Your task to perform on an android device: delete location history Image 0: 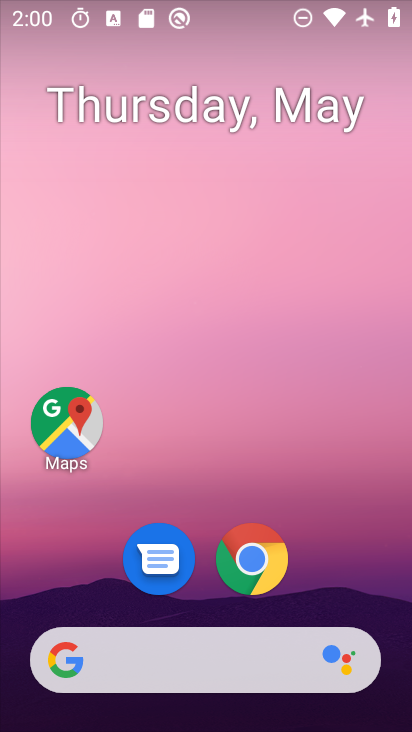
Step 0: drag from (221, 623) to (166, 102)
Your task to perform on an android device: delete location history Image 1: 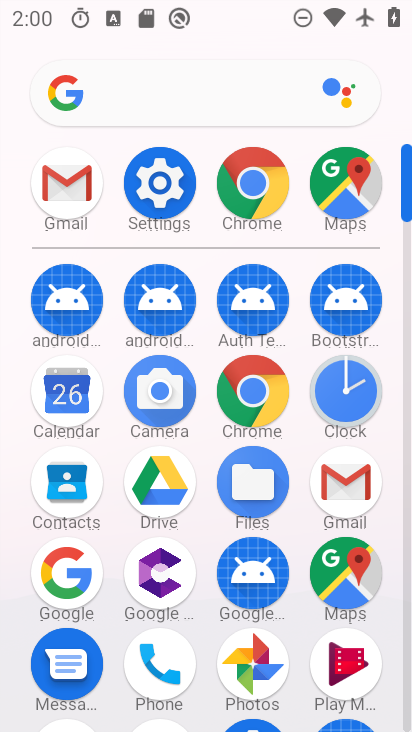
Step 1: click (159, 199)
Your task to perform on an android device: delete location history Image 2: 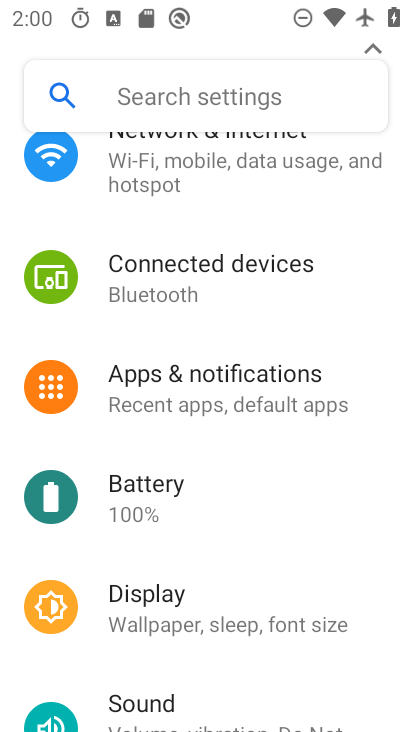
Step 2: drag from (165, 622) to (165, 395)
Your task to perform on an android device: delete location history Image 3: 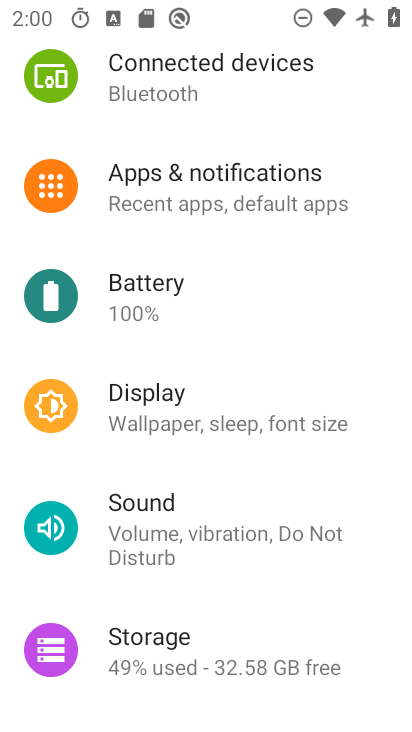
Step 3: drag from (185, 563) to (196, 244)
Your task to perform on an android device: delete location history Image 4: 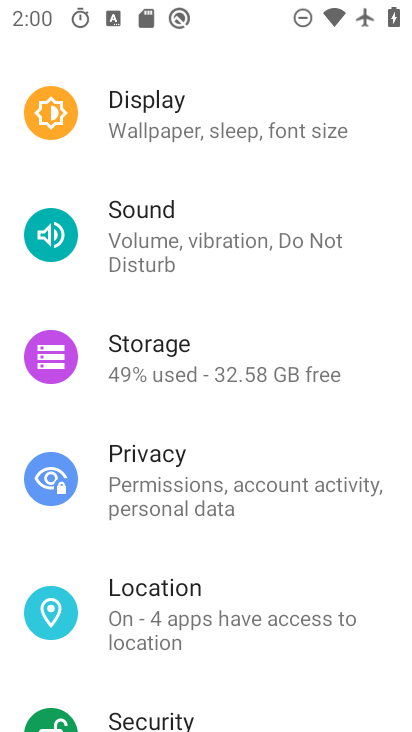
Step 4: click (210, 605)
Your task to perform on an android device: delete location history Image 5: 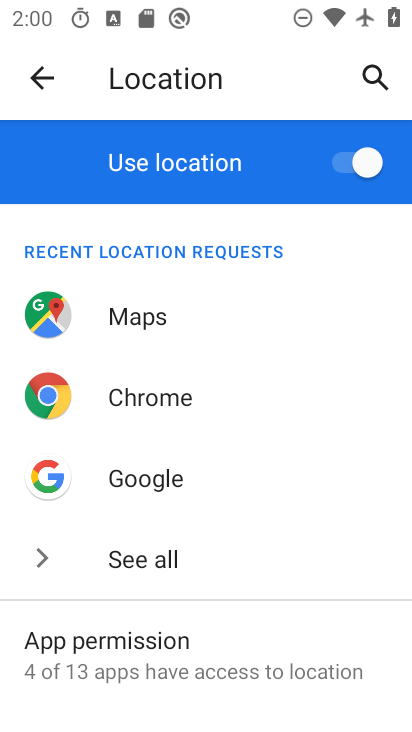
Step 5: drag from (210, 603) to (192, 234)
Your task to perform on an android device: delete location history Image 6: 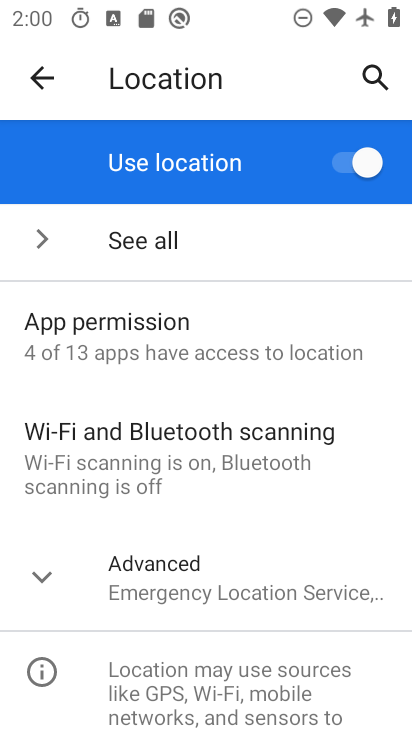
Step 6: click (173, 568)
Your task to perform on an android device: delete location history Image 7: 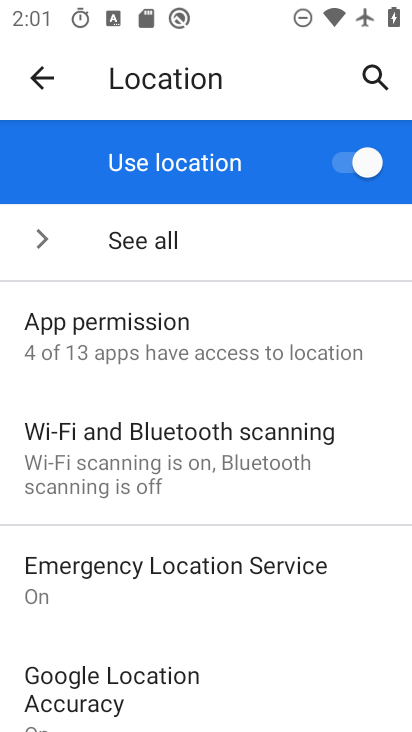
Step 7: drag from (223, 616) to (192, 328)
Your task to perform on an android device: delete location history Image 8: 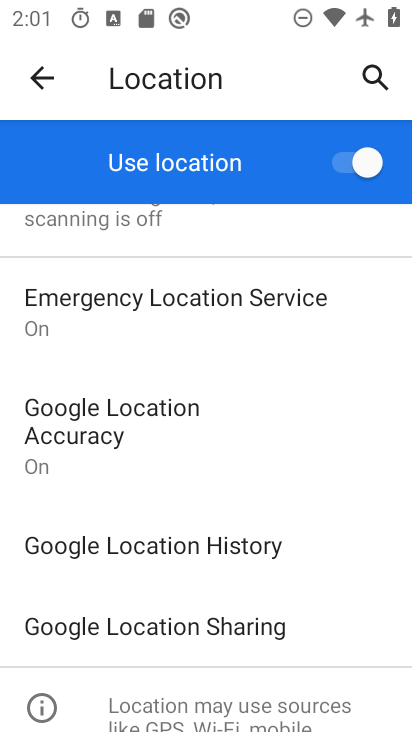
Step 8: click (242, 553)
Your task to perform on an android device: delete location history Image 9: 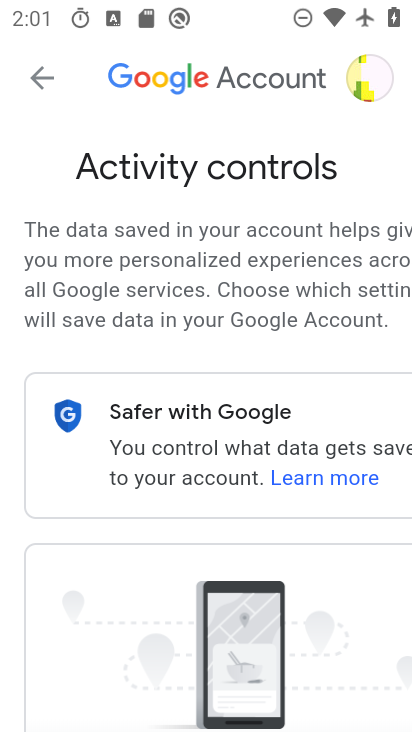
Step 9: drag from (249, 583) to (77, 264)
Your task to perform on an android device: delete location history Image 10: 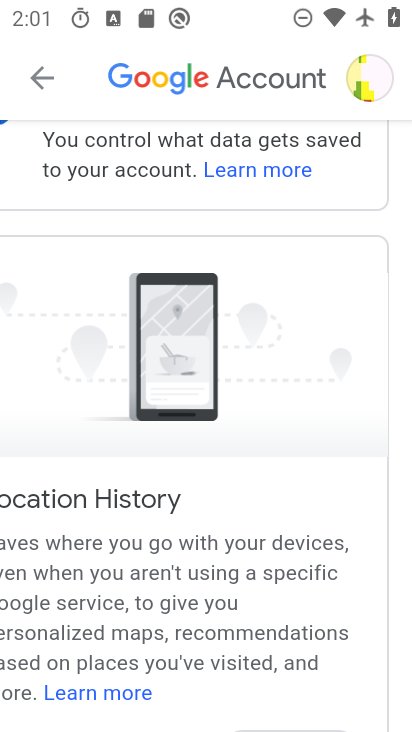
Step 10: drag from (252, 577) to (226, 302)
Your task to perform on an android device: delete location history Image 11: 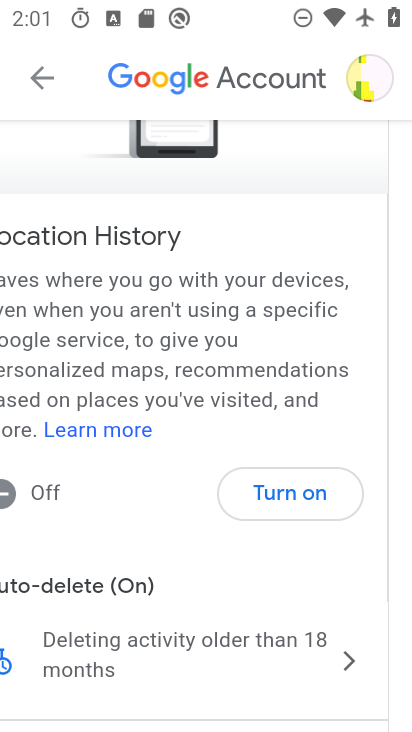
Step 11: click (229, 652)
Your task to perform on an android device: delete location history Image 12: 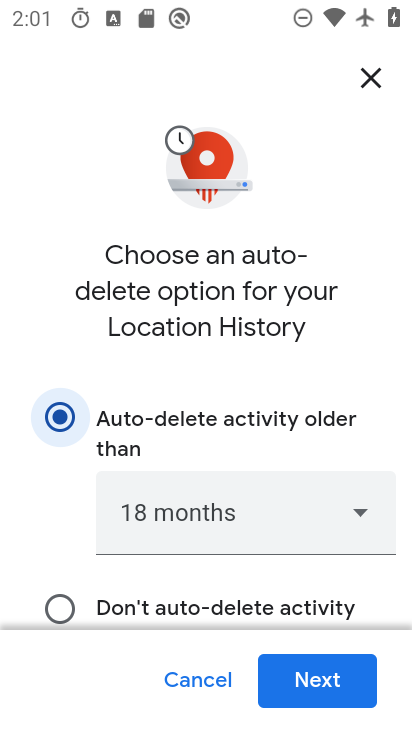
Step 12: click (344, 683)
Your task to perform on an android device: delete location history Image 13: 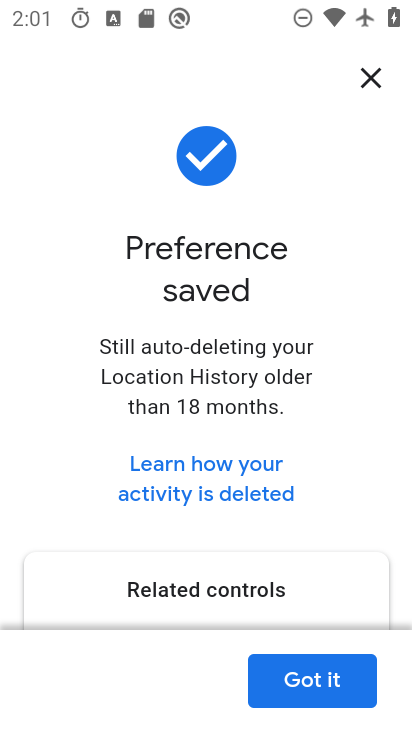
Step 13: click (333, 685)
Your task to perform on an android device: delete location history Image 14: 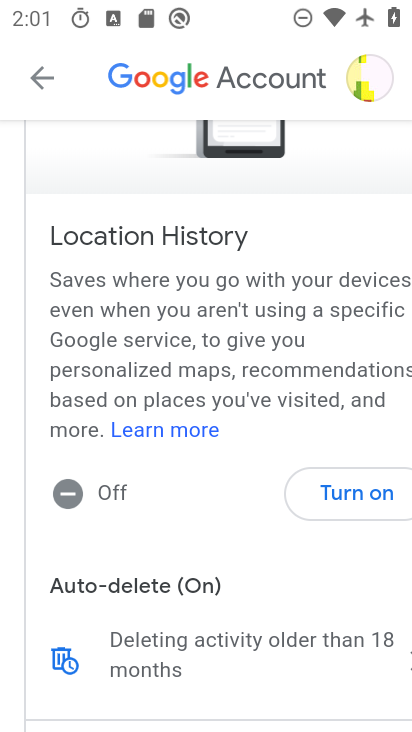
Step 14: task complete